Your task to perform on an android device: turn on translation in the chrome app Image 0: 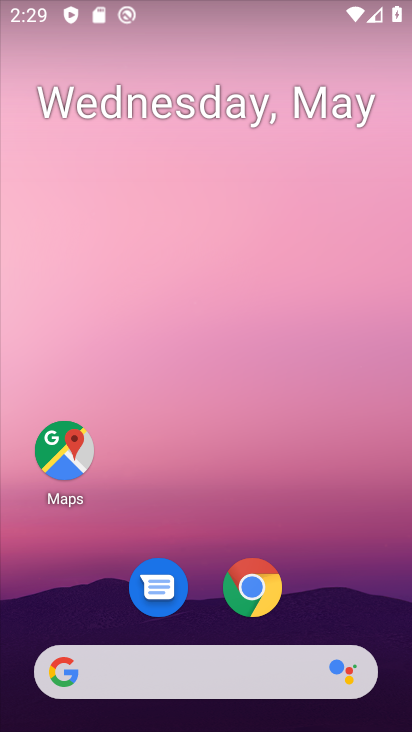
Step 0: click (250, 590)
Your task to perform on an android device: turn on translation in the chrome app Image 1: 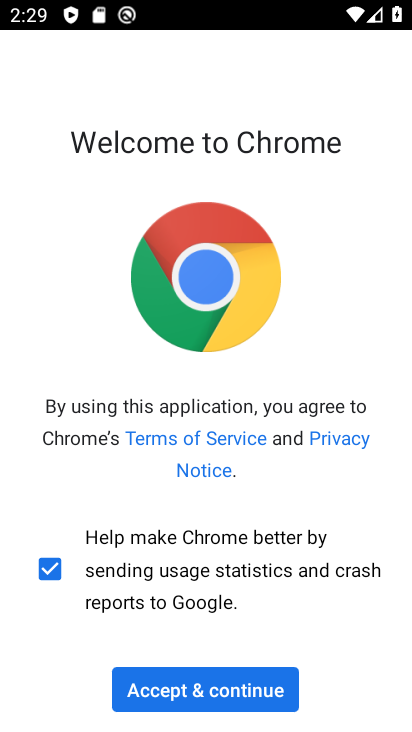
Step 1: click (229, 681)
Your task to perform on an android device: turn on translation in the chrome app Image 2: 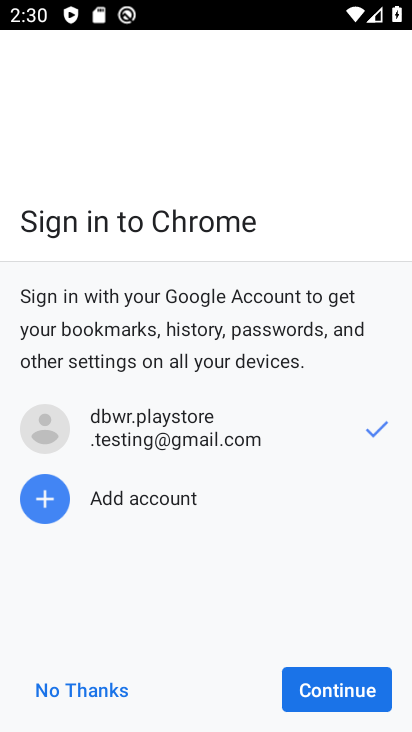
Step 2: click (329, 689)
Your task to perform on an android device: turn on translation in the chrome app Image 3: 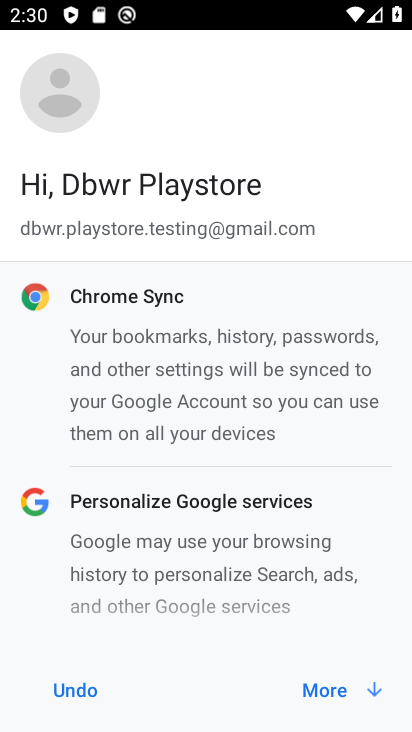
Step 3: click (321, 690)
Your task to perform on an android device: turn on translation in the chrome app Image 4: 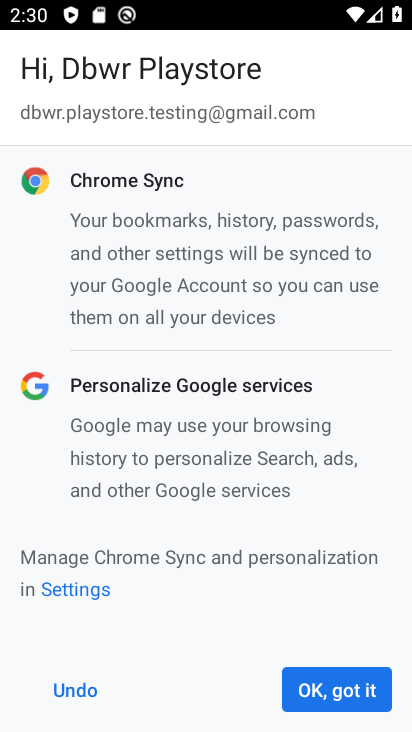
Step 4: click (321, 690)
Your task to perform on an android device: turn on translation in the chrome app Image 5: 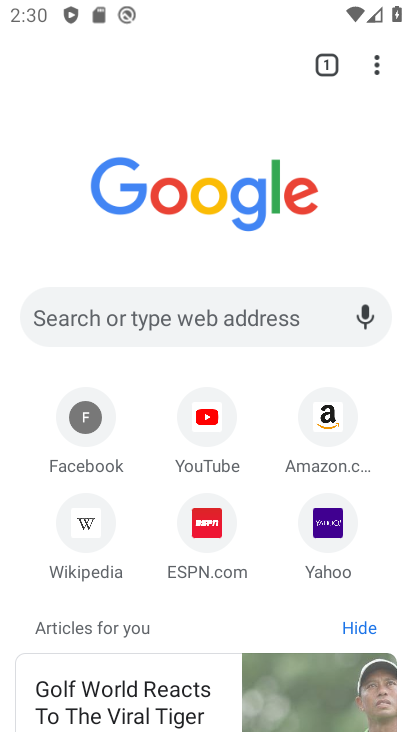
Step 5: click (386, 68)
Your task to perform on an android device: turn on translation in the chrome app Image 6: 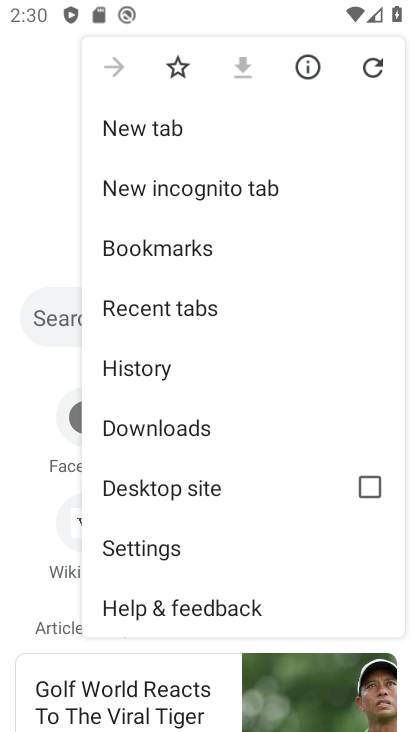
Step 6: click (164, 557)
Your task to perform on an android device: turn on translation in the chrome app Image 7: 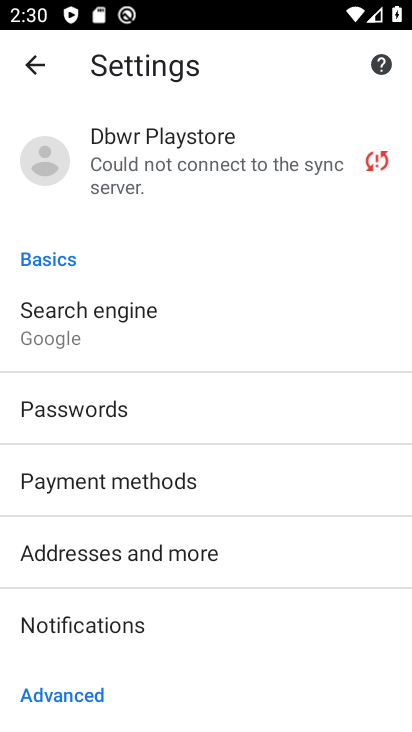
Step 7: drag from (162, 626) to (219, 70)
Your task to perform on an android device: turn on translation in the chrome app Image 8: 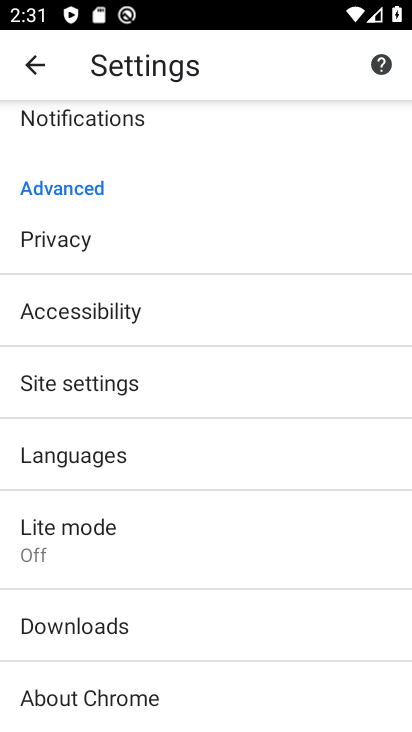
Step 8: click (126, 453)
Your task to perform on an android device: turn on translation in the chrome app Image 9: 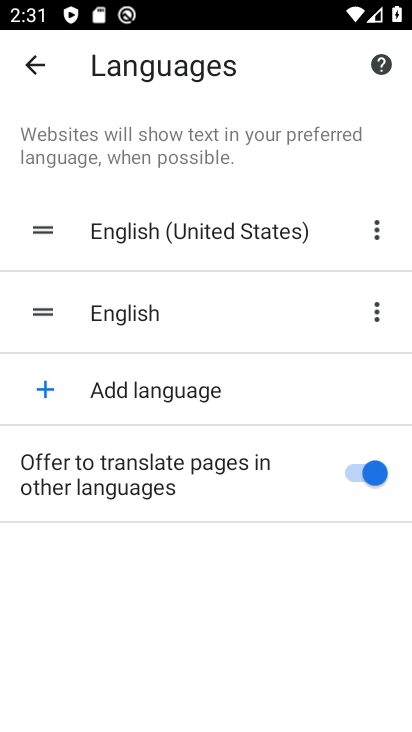
Step 9: task complete